Your task to perform on an android device: View the shopping cart on bestbuy. Search for logitech g903 on bestbuy, select the first entry, add it to the cart, then select checkout. Image 0: 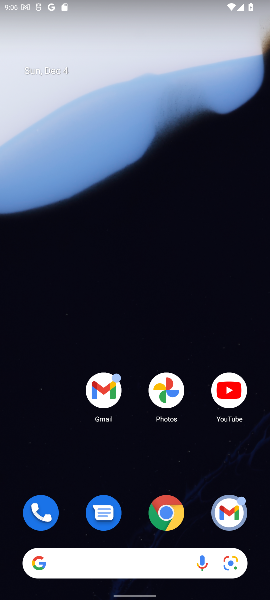
Step 0: click (168, 520)
Your task to perform on an android device: View the shopping cart on bestbuy. Search for logitech g903 on bestbuy, select the first entry, add it to the cart, then select checkout. Image 1: 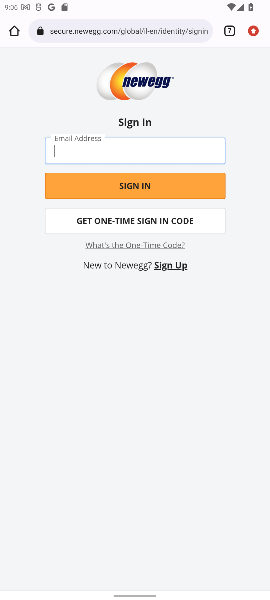
Step 1: click (227, 34)
Your task to perform on an android device: View the shopping cart on bestbuy. Search for logitech g903 on bestbuy, select the first entry, add it to the cart, then select checkout. Image 2: 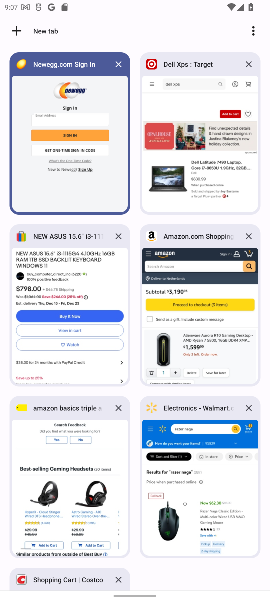
Step 2: click (60, 488)
Your task to perform on an android device: View the shopping cart on bestbuy. Search for logitech g903 on bestbuy, select the first entry, add it to the cart, then select checkout. Image 3: 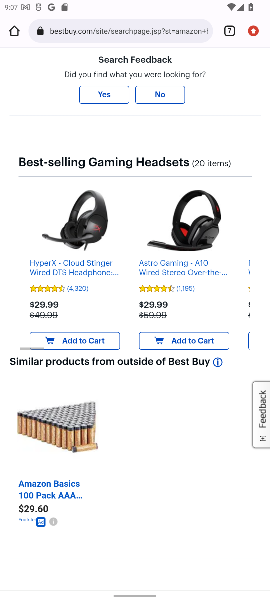
Step 3: drag from (156, 116) to (114, 390)
Your task to perform on an android device: View the shopping cart on bestbuy. Search for logitech g903 on bestbuy, select the first entry, add it to the cart, then select checkout. Image 4: 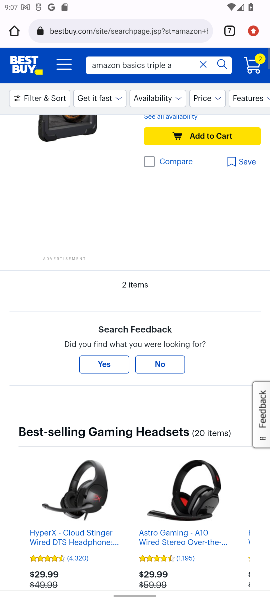
Step 4: click (203, 62)
Your task to perform on an android device: View the shopping cart on bestbuy. Search for logitech g903 on bestbuy, select the first entry, add it to the cart, then select checkout. Image 5: 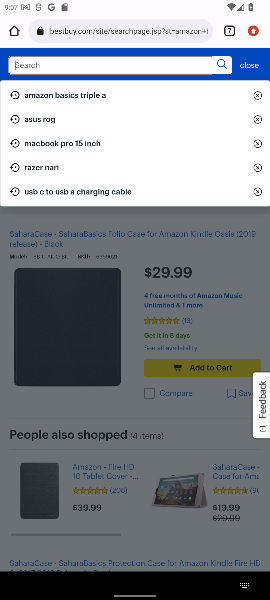
Step 5: type "logitech g903"
Your task to perform on an android device: View the shopping cart on bestbuy. Search for logitech g903 on bestbuy, select the first entry, add it to the cart, then select checkout. Image 6: 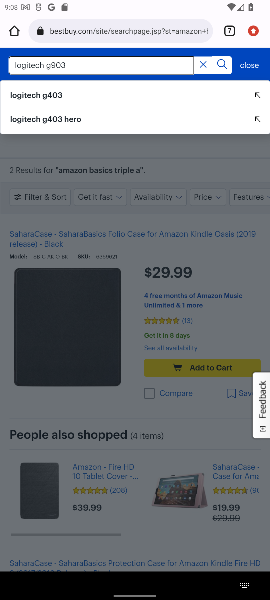
Step 6: click (220, 61)
Your task to perform on an android device: View the shopping cart on bestbuy. Search for logitech g903 on bestbuy, select the first entry, add it to the cart, then select checkout. Image 7: 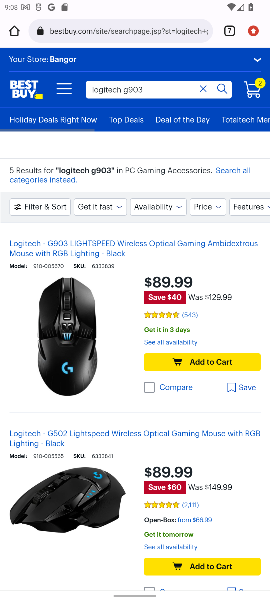
Step 7: click (208, 361)
Your task to perform on an android device: View the shopping cart on bestbuy. Search for logitech g903 on bestbuy, select the first entry, add it to the cart, then select checkout. Image 8: 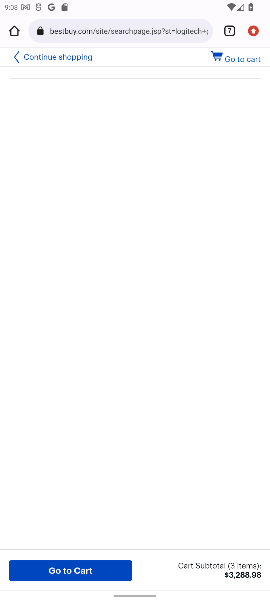
Step 8: task complete